Your task to perform on an android device: snooze an email in the gmail app Image 0: 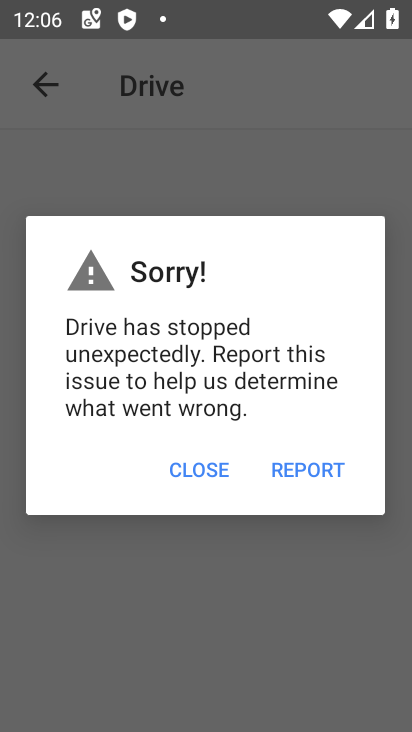
Step 0: click (329, 653)
Your task to perform on an android device: snooze an email in the gmail app Image 1: 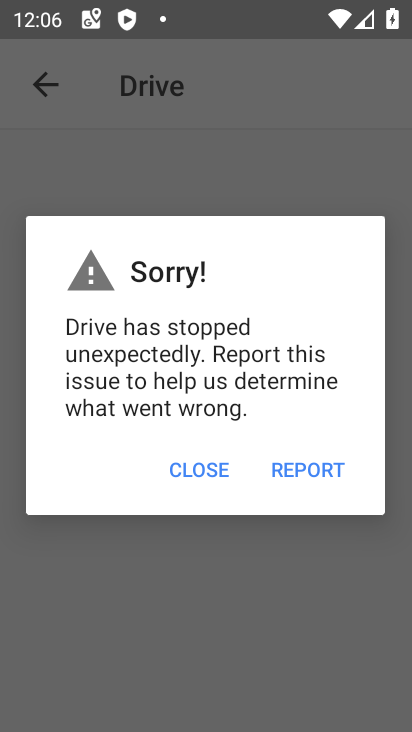
Step 1: press home button
Your task to perform on an android device: snooze an email in the gmail app Image 2: 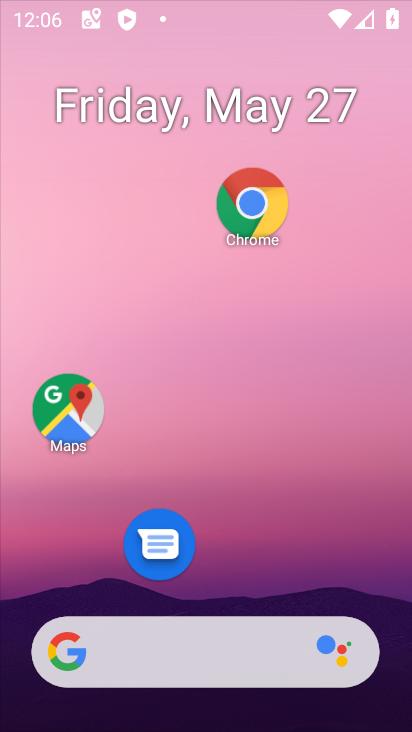
Step 2: drag from (290, 180) to (319, 36)
Your task to perform on an android device: snooze an email in the gmail app Image 3: 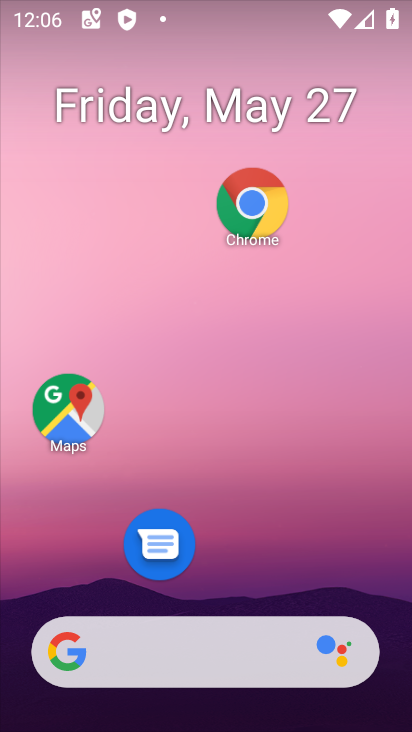
Step 3: drag from (222, 580) to (254, 140)
Your task to perform on an android device: snooze an email in the gmail app Image 4: 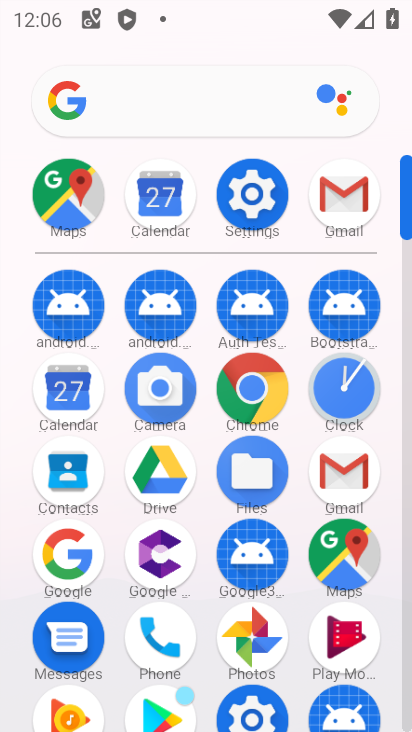
Step 4: drag from (218, 546) to (218, 248)
Your task to perform on an android device: snooze an email in the gmail app Image 5: 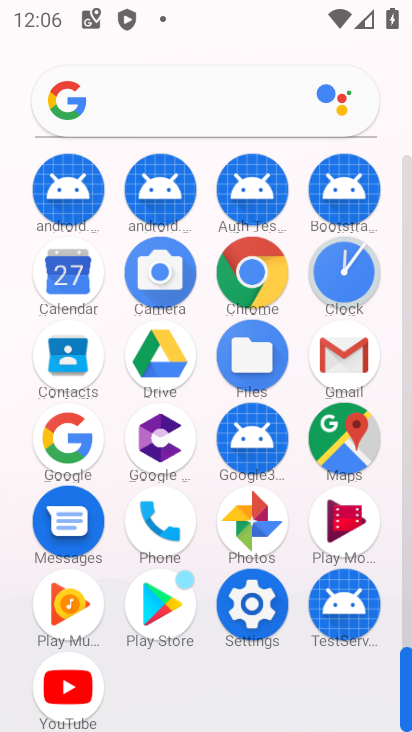
Step 5: click (331, 356)
Your task to perform on an android device: snooze an email in the gmail app Image 6: 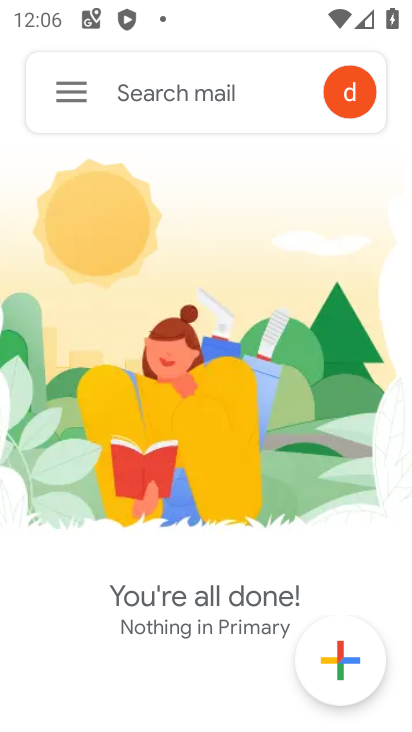
Step 6: task complete